Your task to perform on an android device: Search for dell alienware on target, select the first entry, add it to the cart, then select checkout. Image 0: 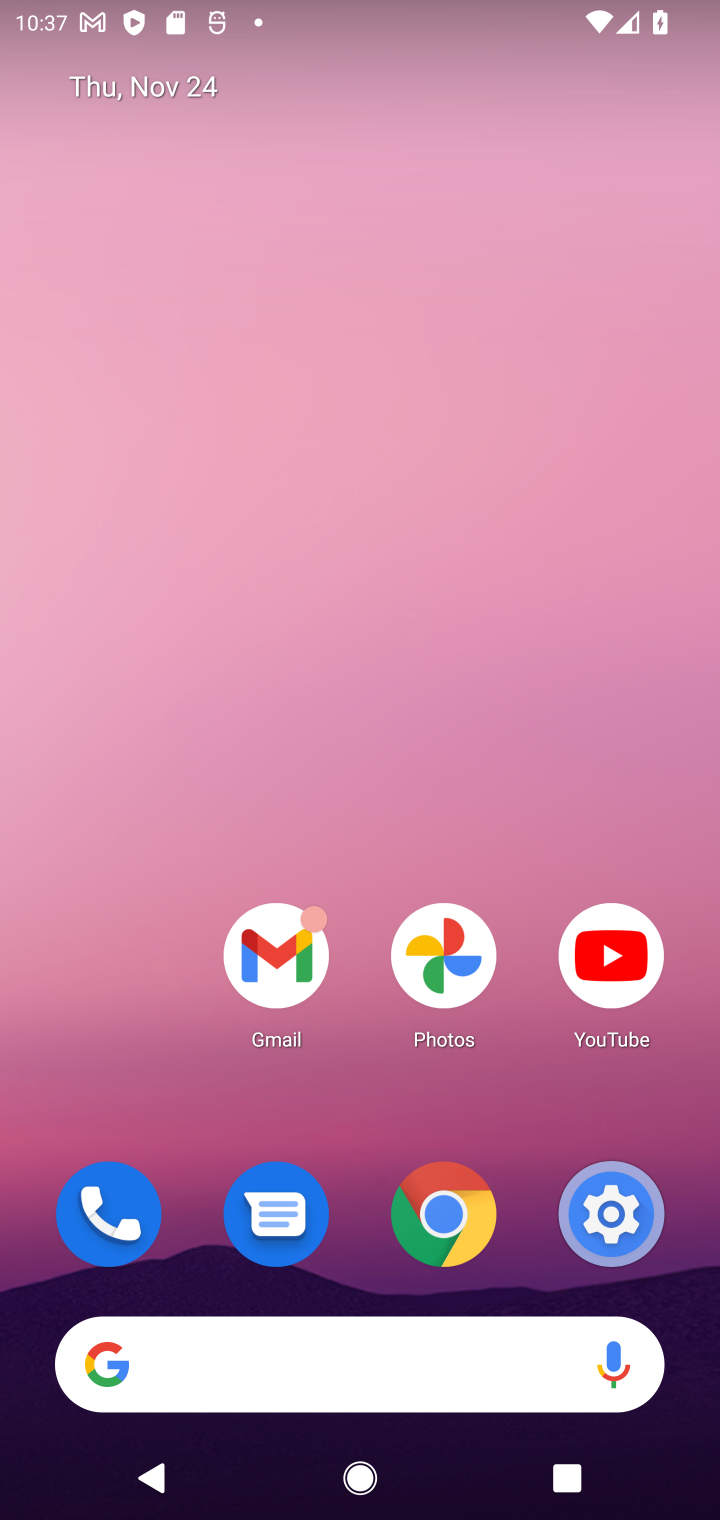
Step 0: click (324, 1359)
Your task to perform on an android device: Search for dell alienware on target, select the first entry, add it to the cart, then select checkout. Image 1: 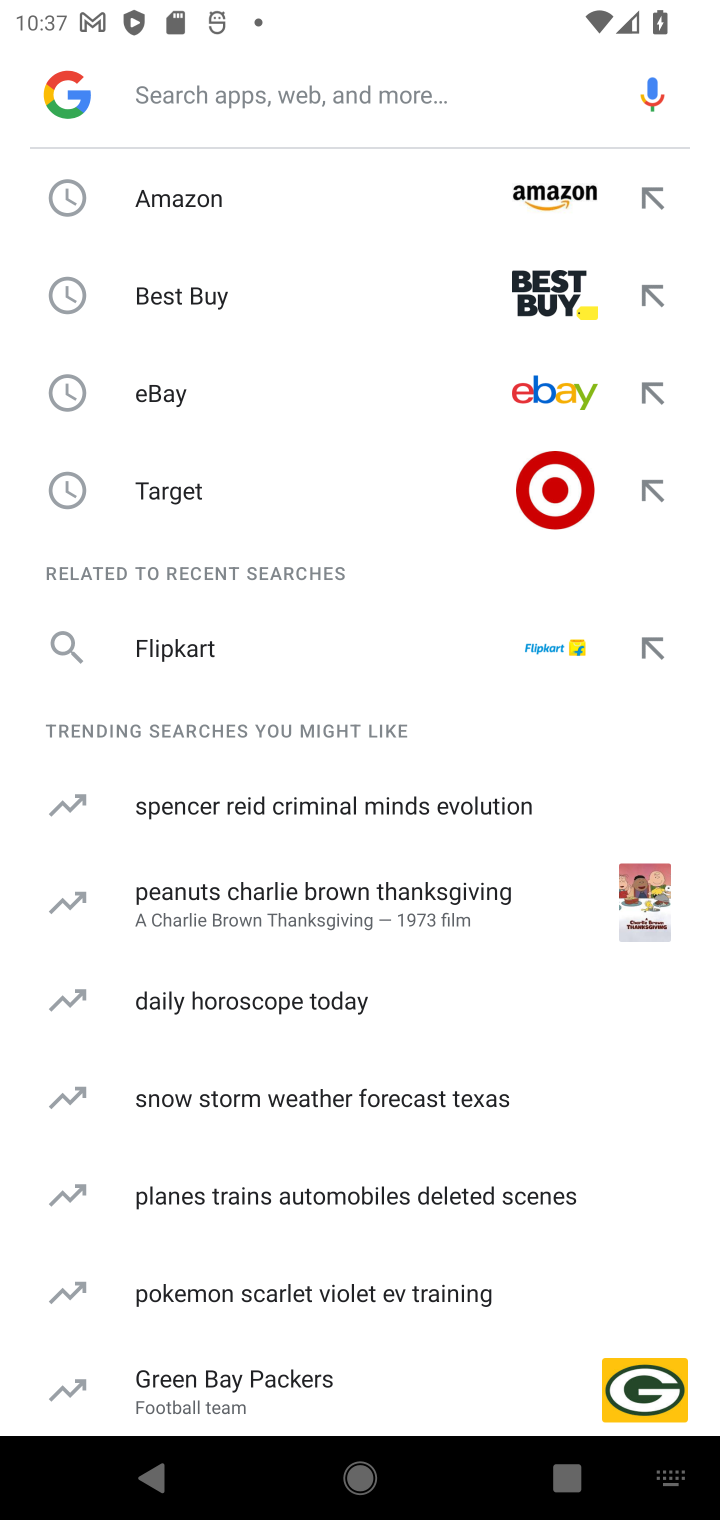
Step 1: click (288, 495)
Your task to perform on an android device: Search for dell alienware on target, select the first entry, add it to the cart, then select checkout. Image 2: 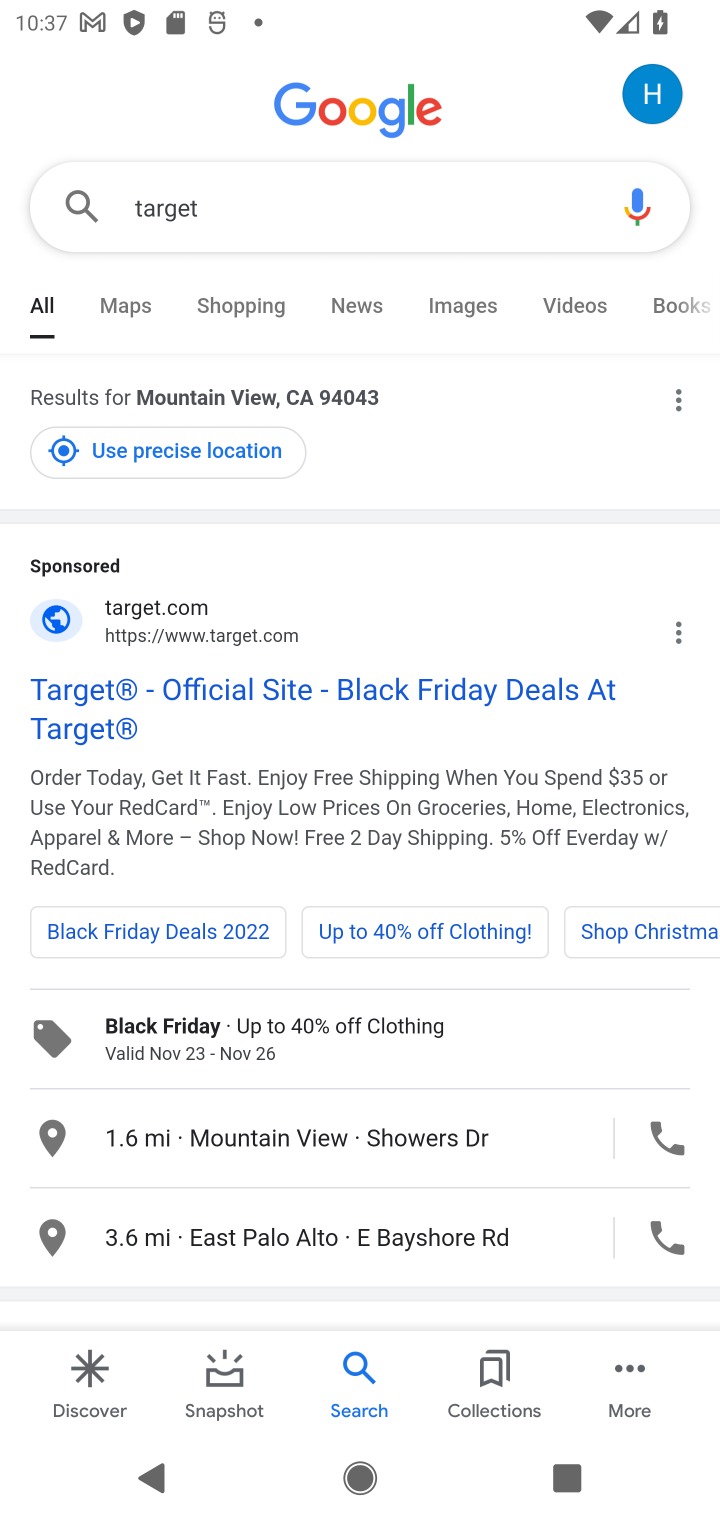
Step 2: click (117, 728)
Your task to perform on an android device: Search for dell alienware on target, select the first entry, add it to the cart, then select checkout. Image 3: 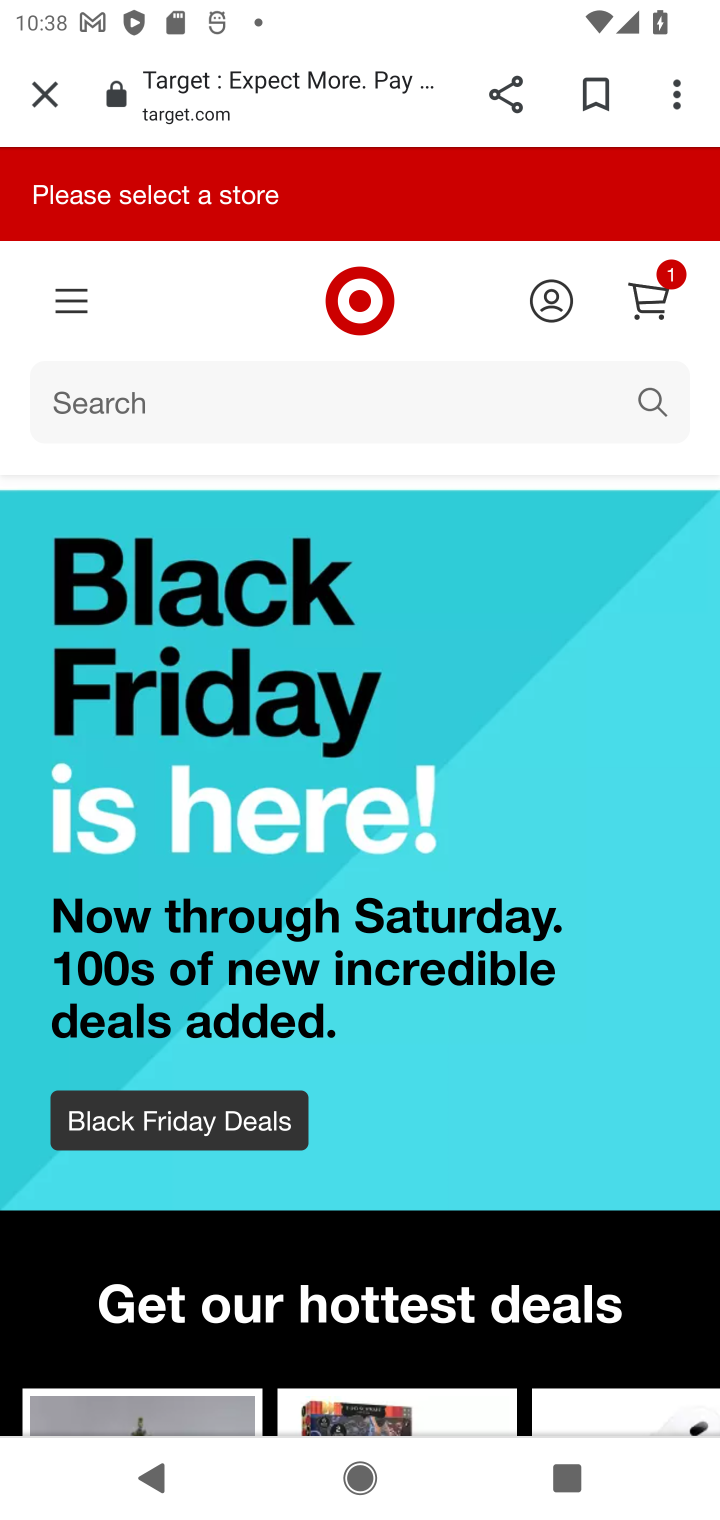
Step 3: task complete